Your task to perform on an android device: open app "Reddit" (install if not already installed), go to login, and select forgot password Image 0: 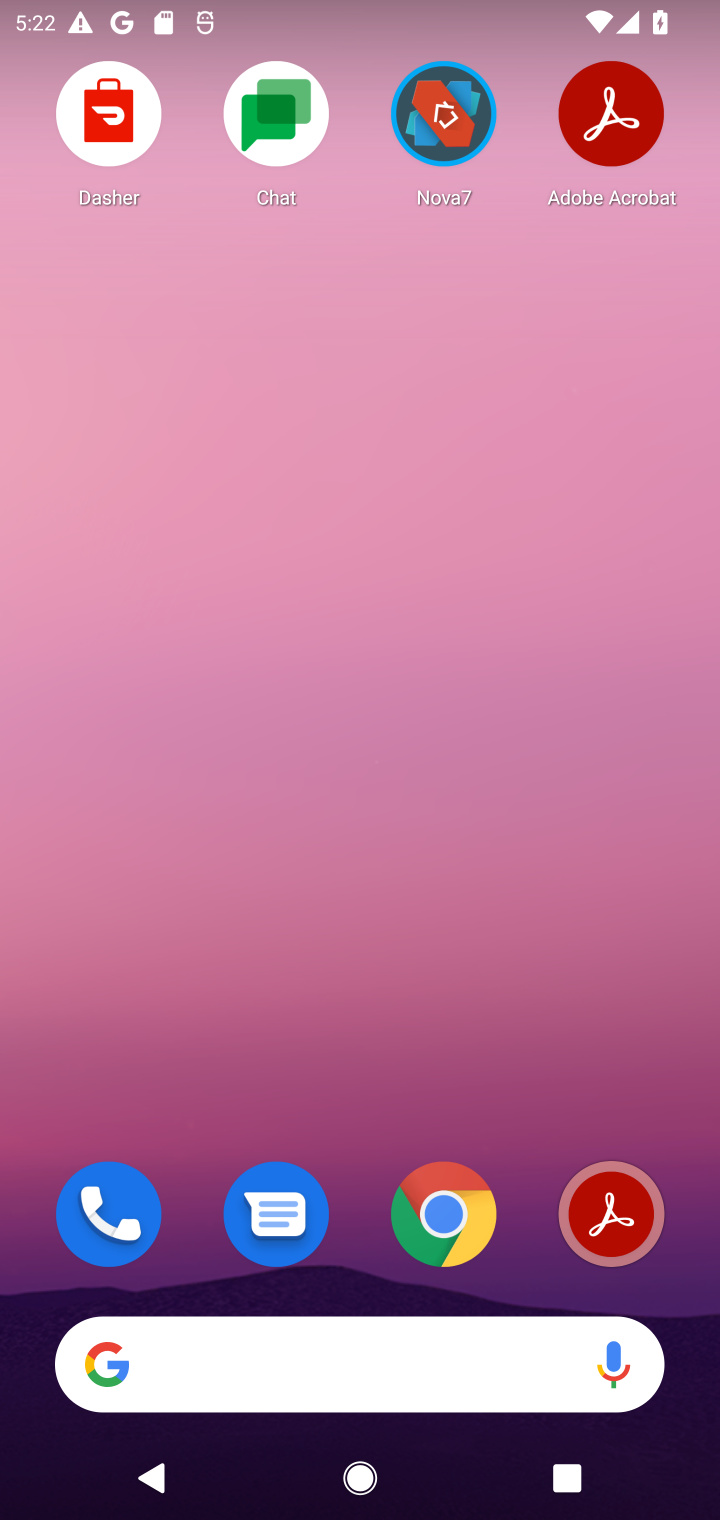
Step 0: drag from (344, 1341) to (309, 668)
Your task to perform on an android device: open app "Reddit" (install if not already installed), go to login, and select forgot password Image 1: 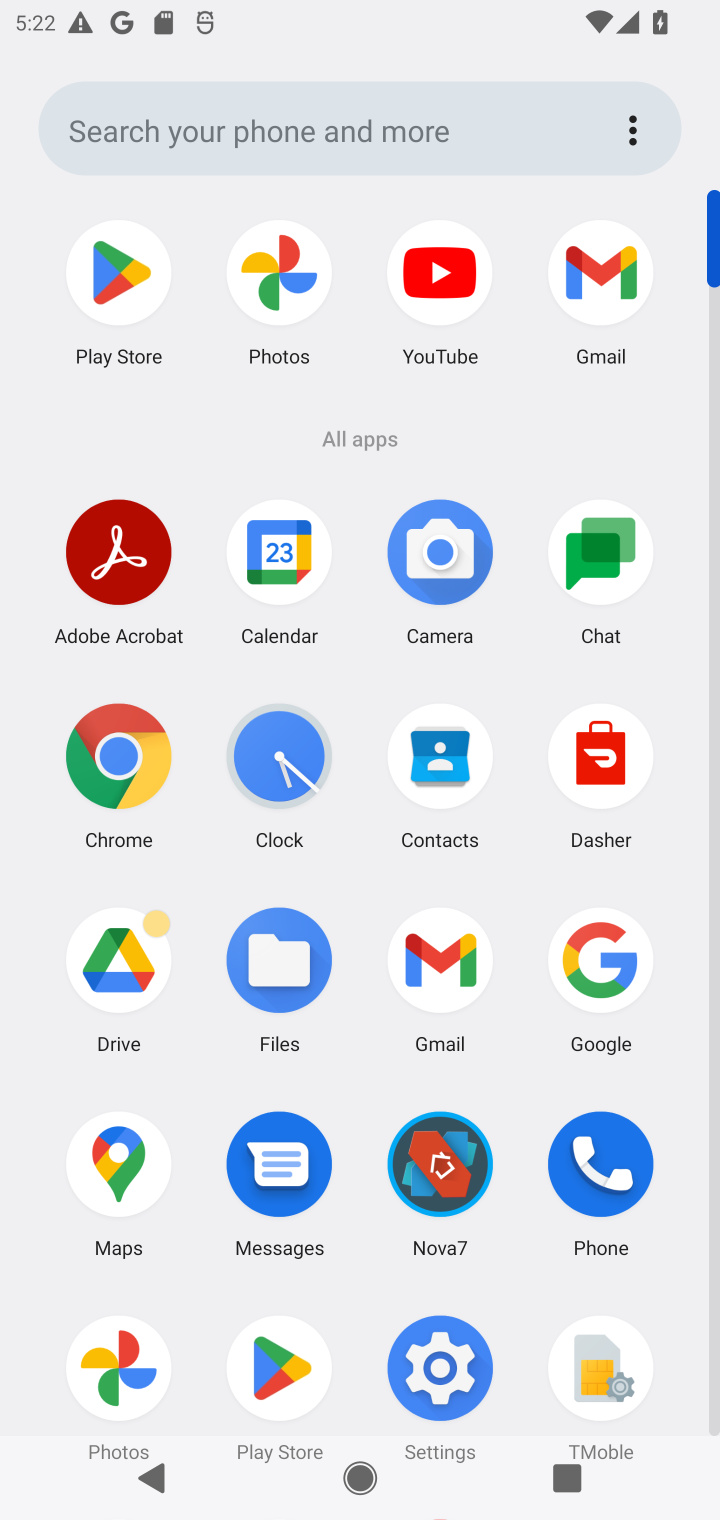
Step 1: click (299, 1374)
Your task to perform on an android device: open app "Reddit" (install if not already installed), go to login, and select forgot password Image 2: 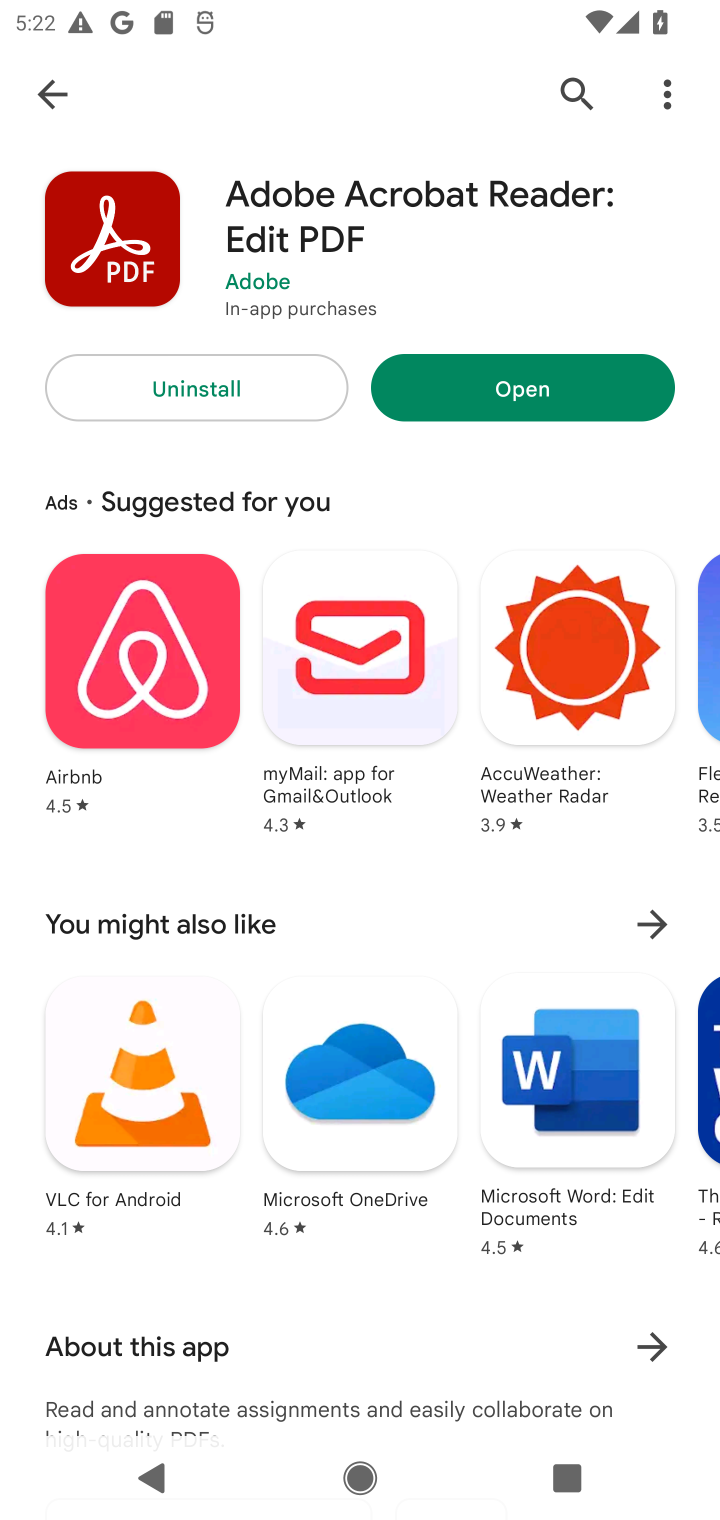
Step 2: click (560, 86)
Your task to perform on an android device: open app "Reddit" (install if not already installed), go to login, and select forgot password Image 3: 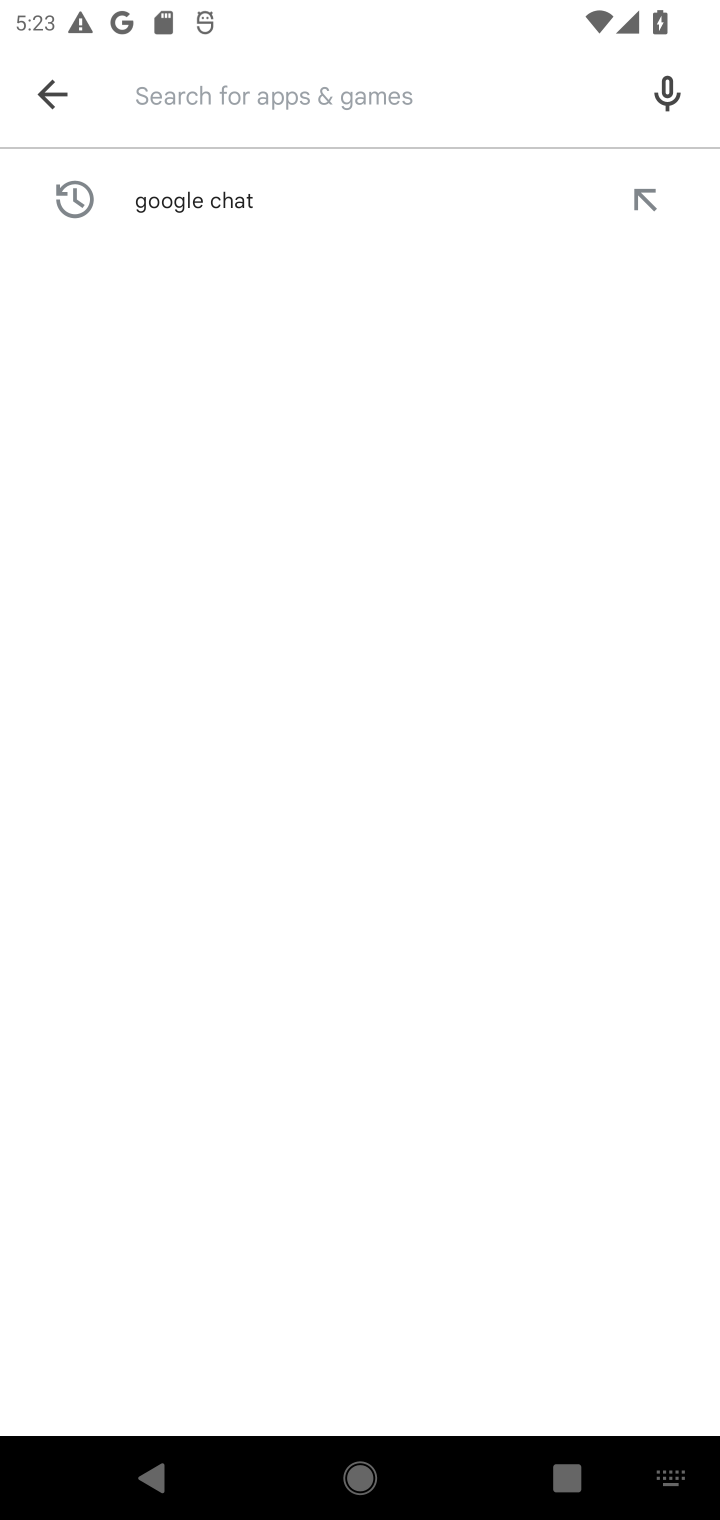
Step 3: type "Reddit"
Your task to perform on an android device: open app "Reddit" (install if not already installed), go to login, and select forgot password Image 4: 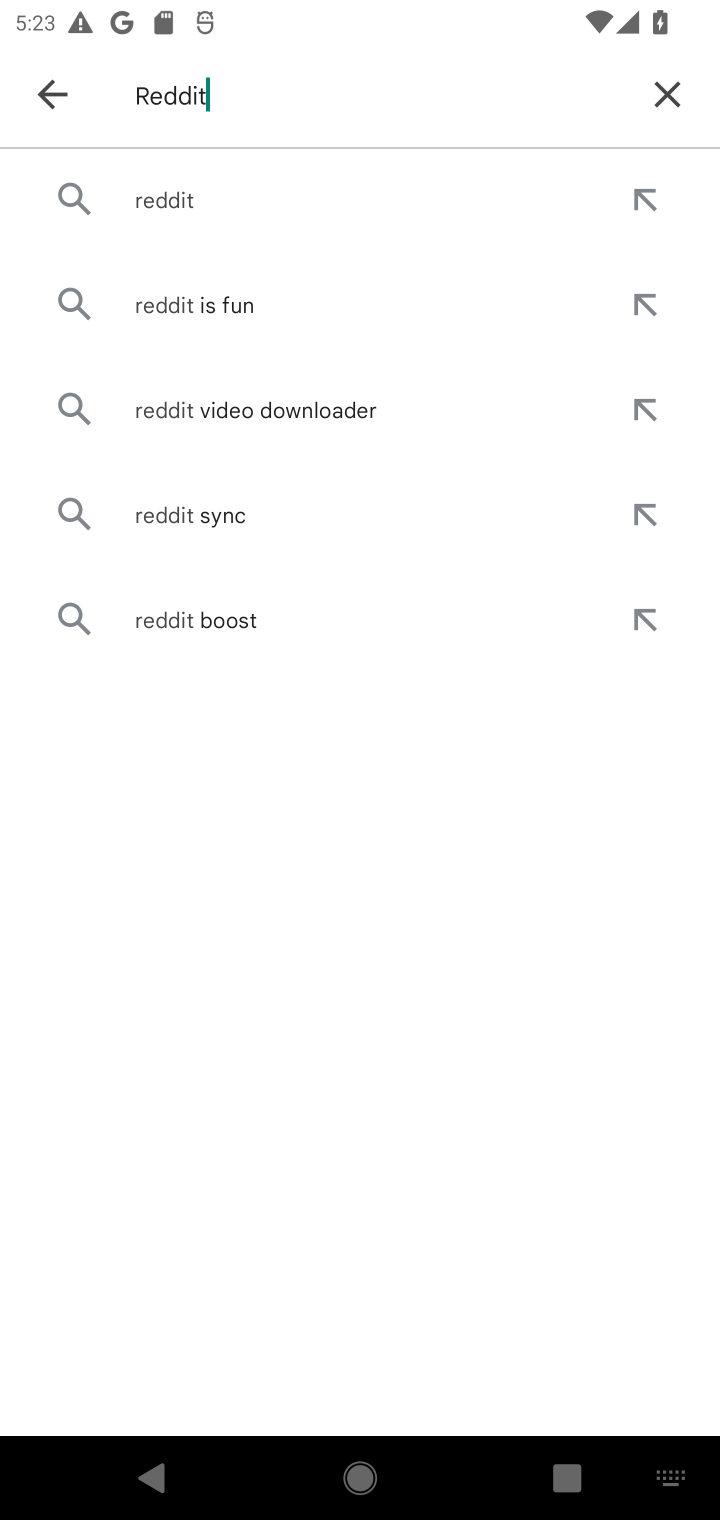
Step 4: click (189, 206)
Your task to perform on an android device: open app "Reddit" (install if not already installed), go to login, and select forgot password Image 5: 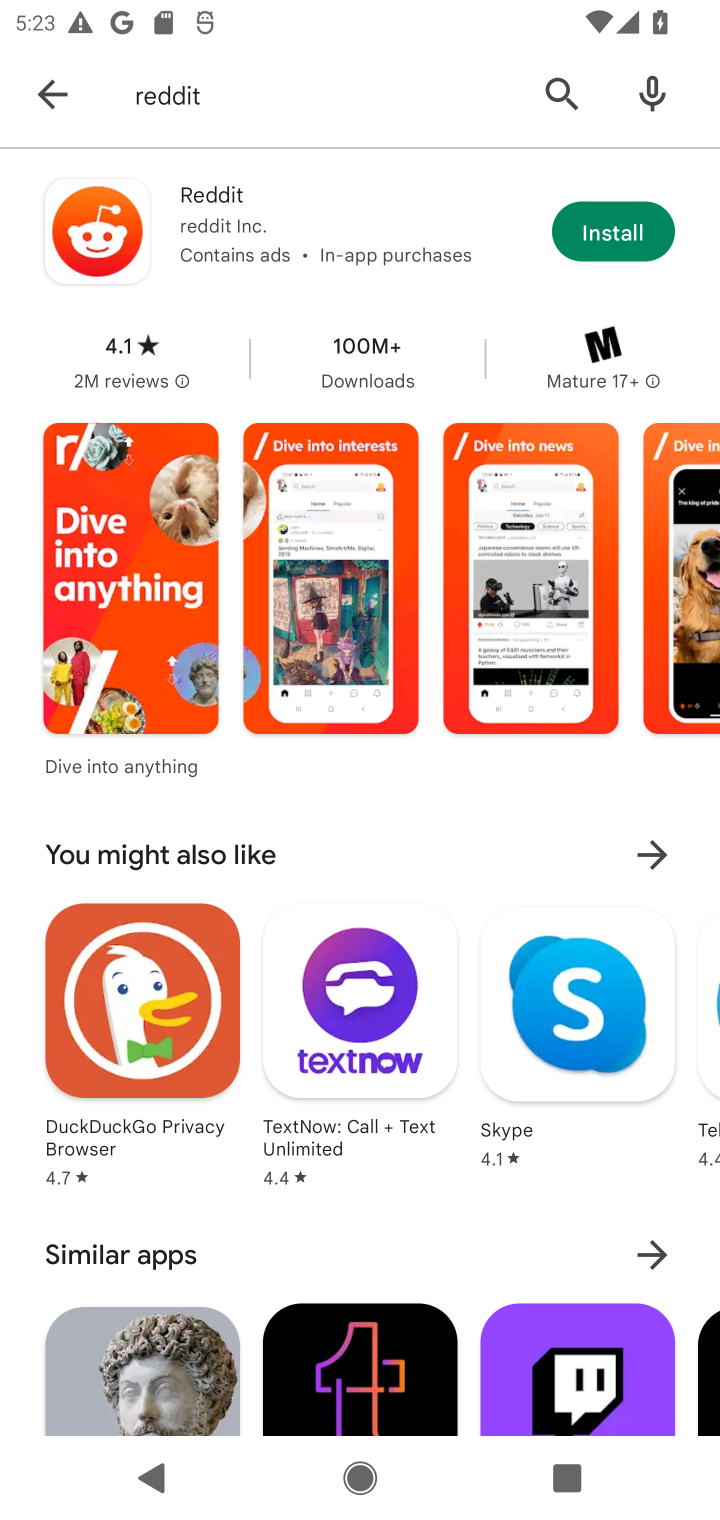
Step 5: click (609, 235)
Your task to perform on an android device: open app "Reddit" (install if not already installed), go to login, and select forgot password Image 6: 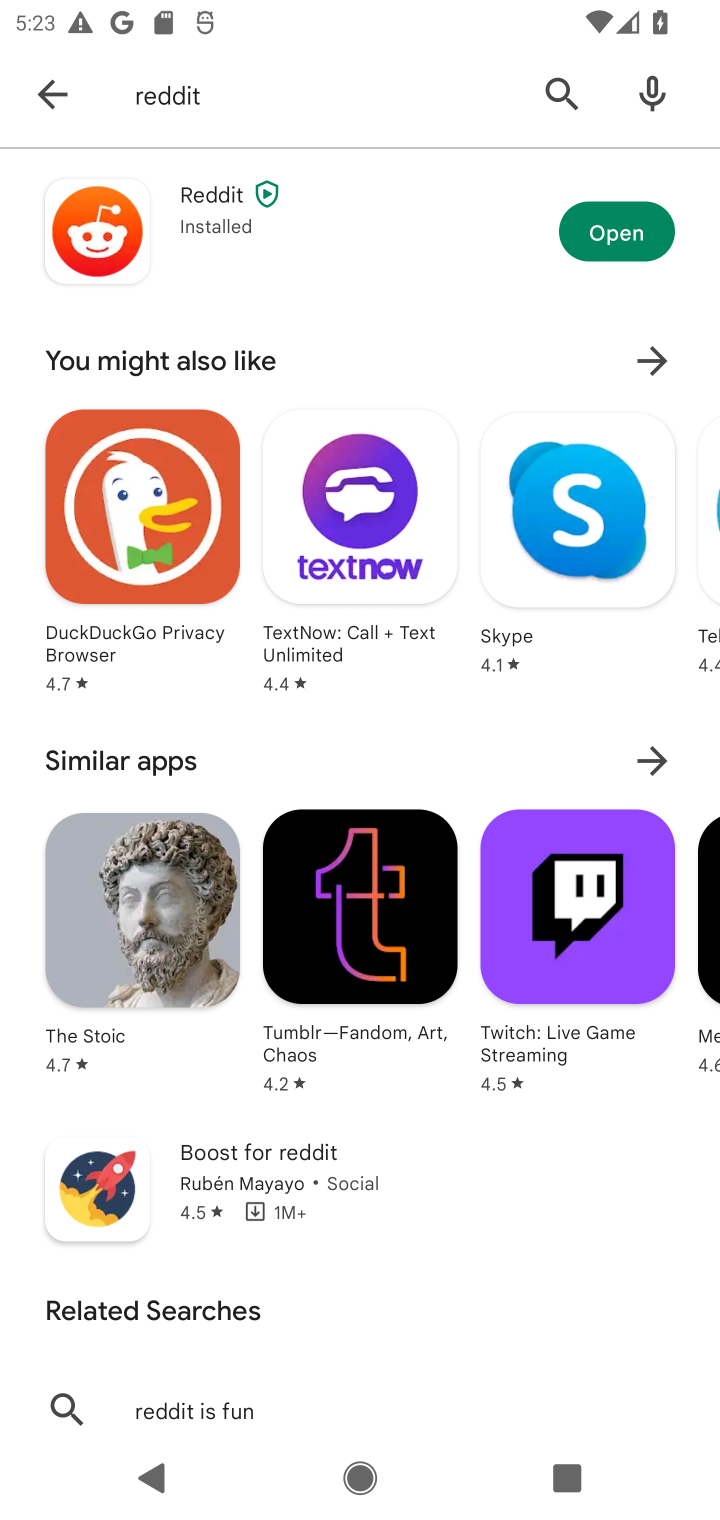
Step 6: click (605, 241)
Your task to perform on an android device: open app "Reddit" (install if not already installed), go to login, and select forgot password Image 7: 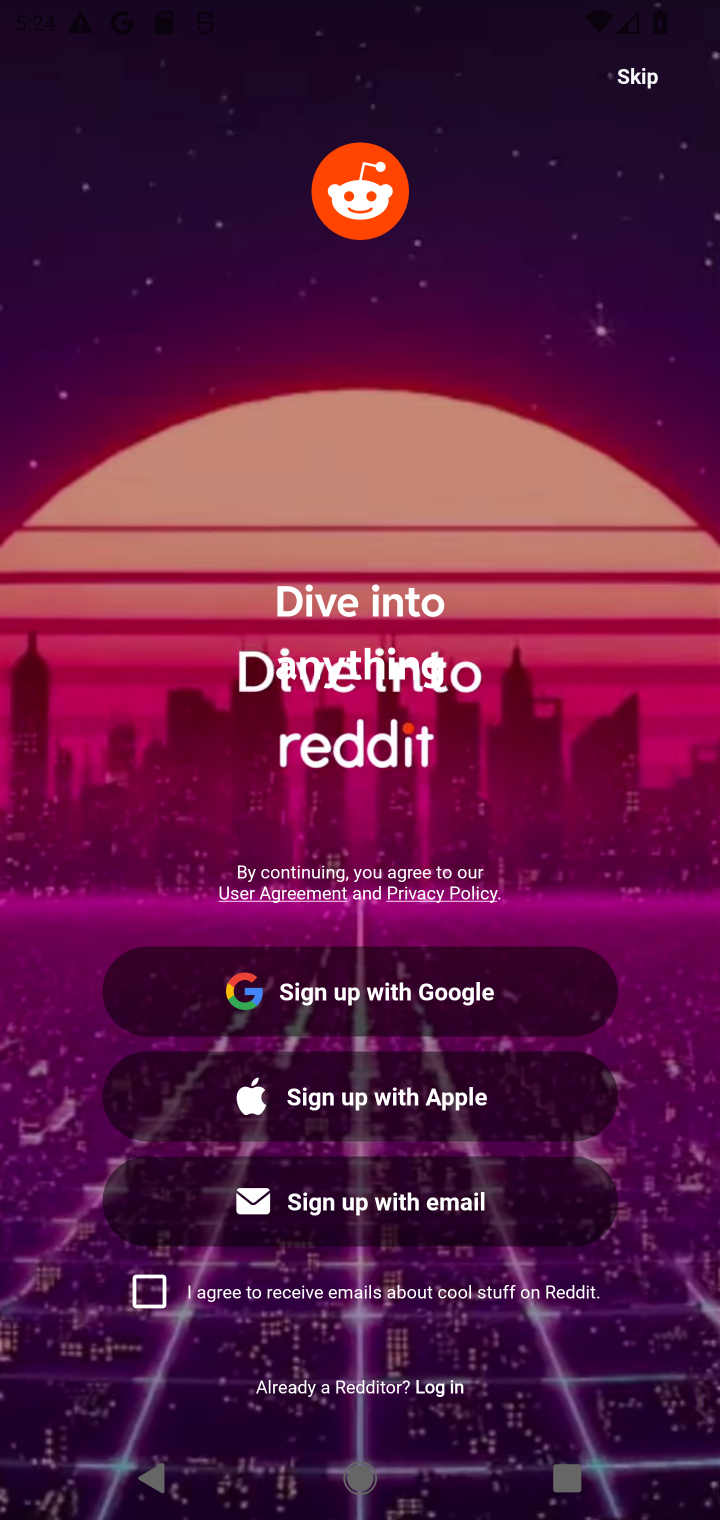
Step 7: task complete